Your task to perform on an android device: all mails in gmail Image 0: 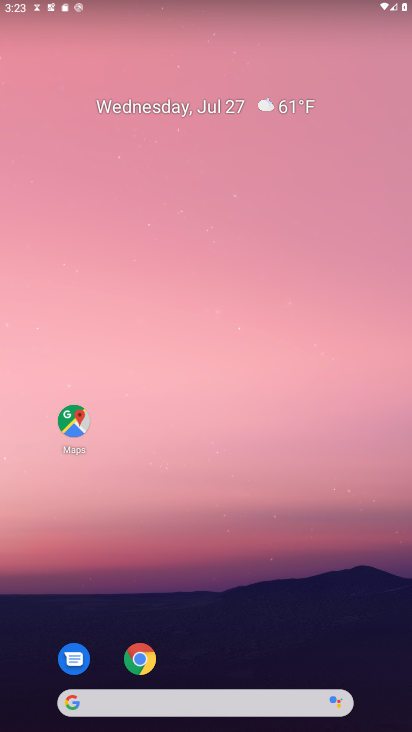
Step 0: drag from (184, 692) to (152, 11)
Your task to perform on an android device: all mails in gmail Image 1: 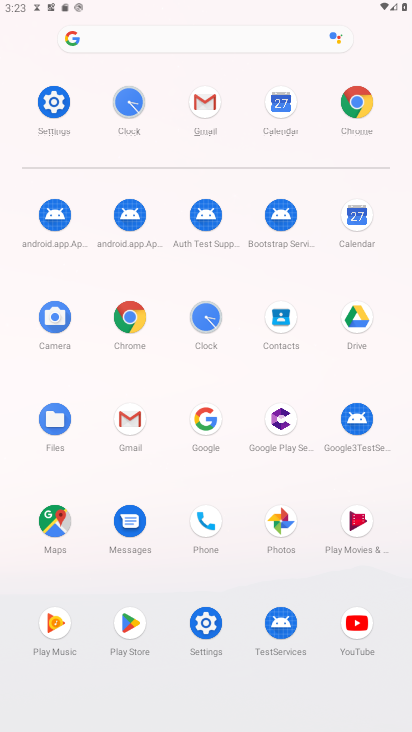
Step 1: click (135, 421)
Your task to perform on an android device: all mails in gmail Image 2: 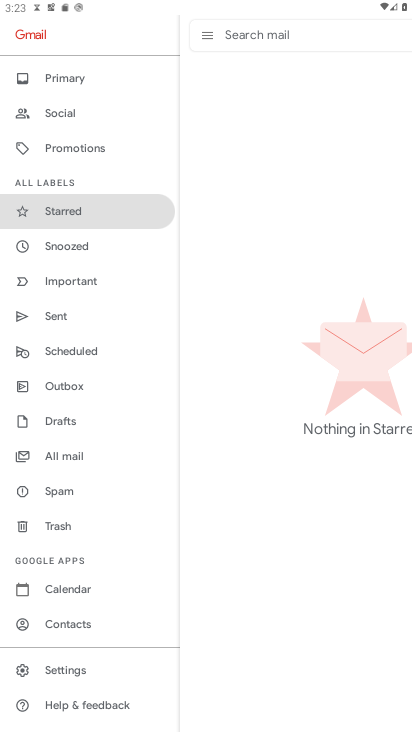
Step 2: click (65, 457)
Your task to perform on an android device: all mails in gmail Image 3: 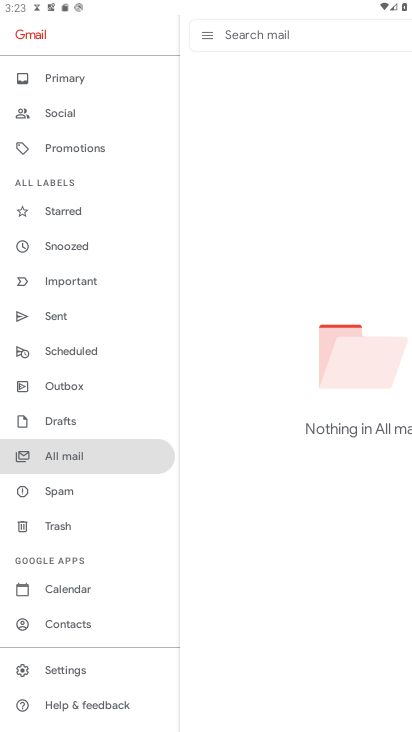
Step 3: task complete